Your task to perform on an android device: toggle notification dots Image 0: 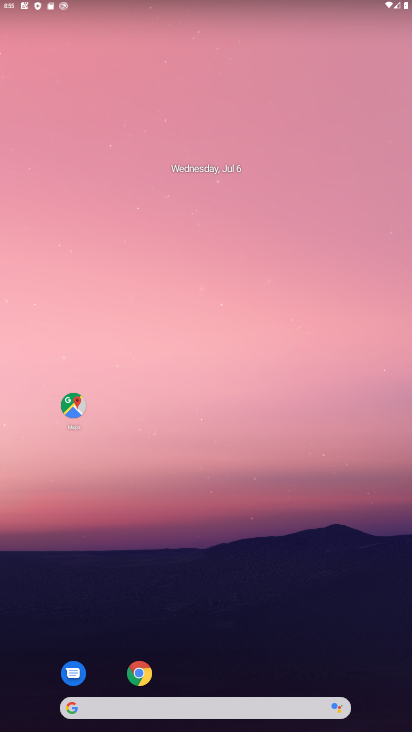
Step 0: drag from (338, 668) to (289, 209)
Your task to perform on an android device: toggle notification dots Image 1: 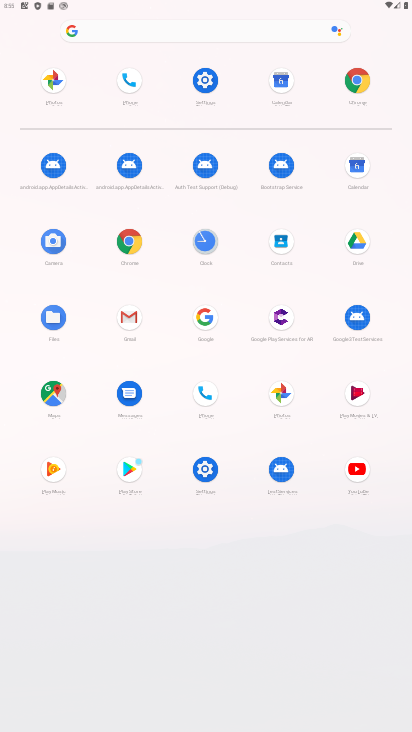
Step 1: click (208, 78)
Your task to perform on an android device: toggle notification dots Image 2: 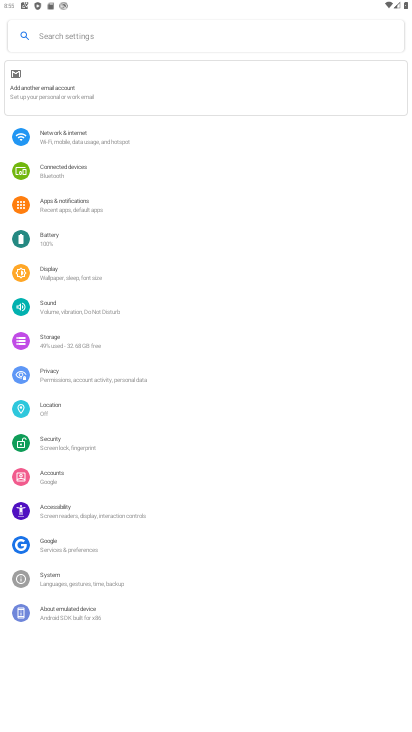
Step 2: click (145, 27)
Your task to perform on an android device: toggle notification dots Image 3: 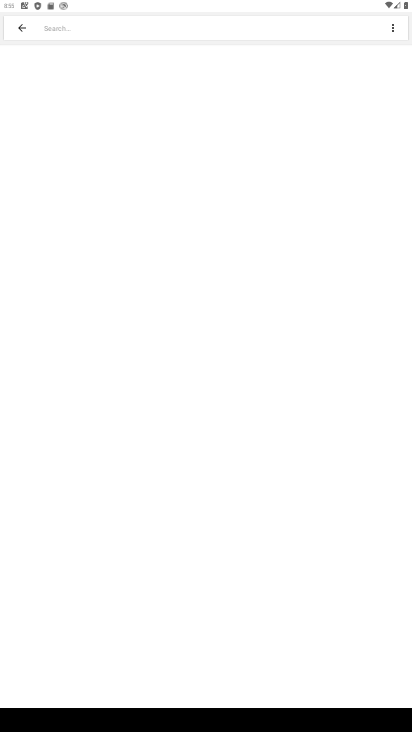
Step 3: type "notification dots "
Your task to perform on an android device: toggle notification dots Image 4: 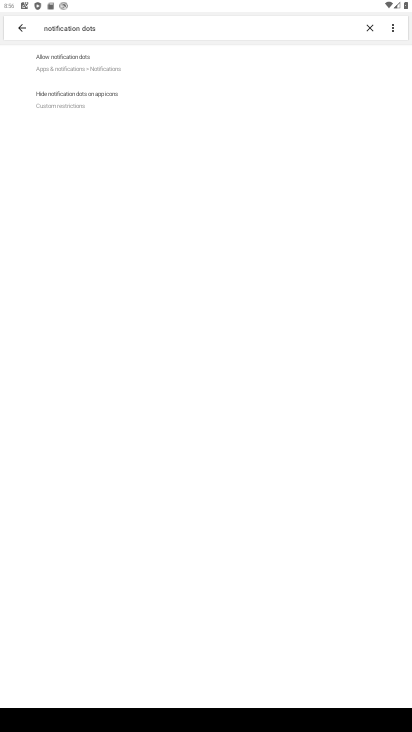
Step 4: task complete